Your task to perform on an android device: install app "Lyft - Rideshare, Bikes, Scooters & Transit" Image 0: 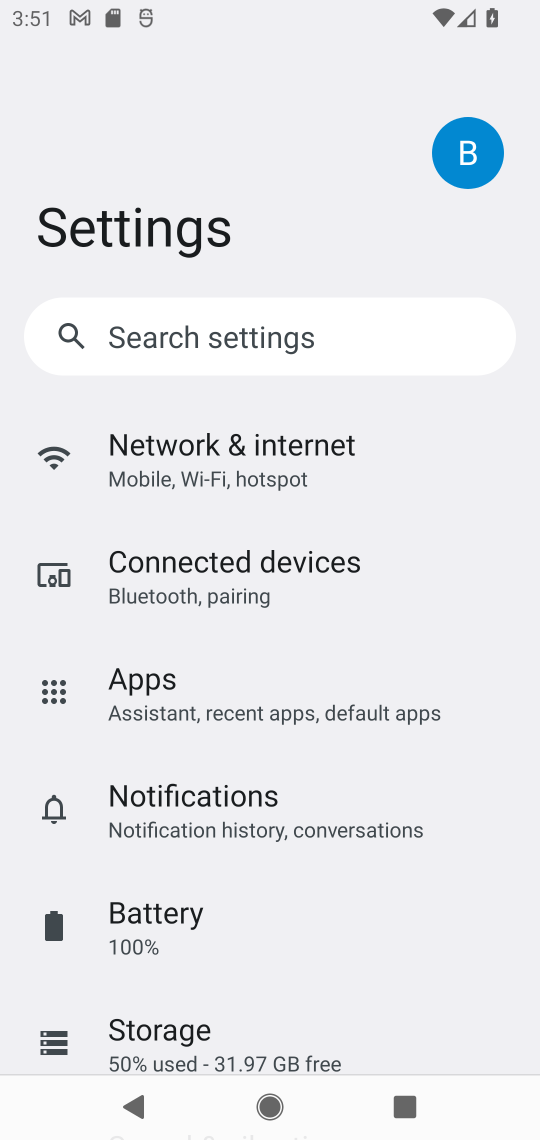
Step 0: press home button
Your task to perform on an android device: install app "Lyft - Rideshare, Bikes, Scooters & Transit" Image 1: 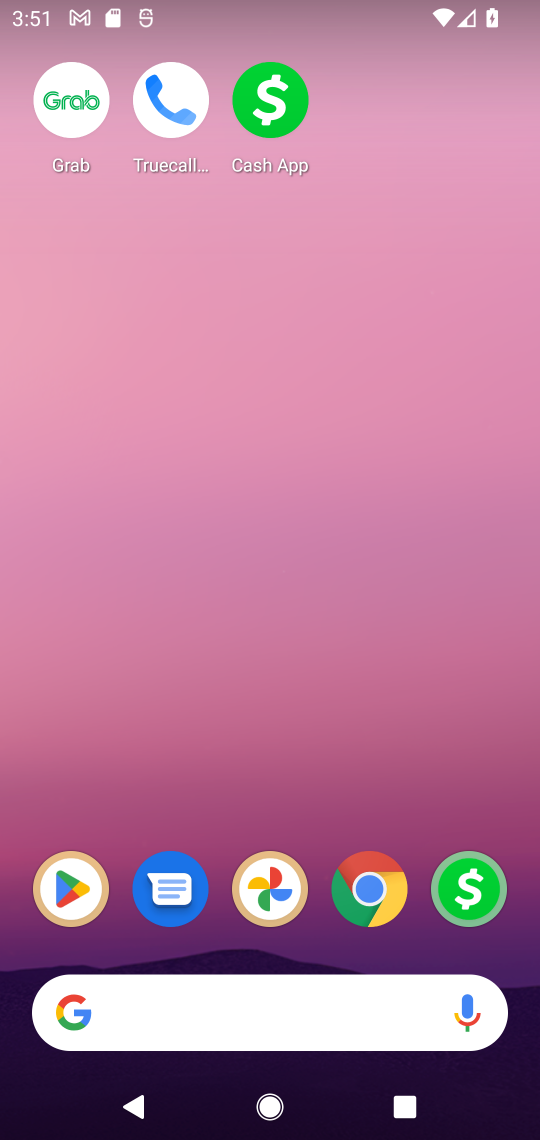
Step 1: drag from (307, 586) to (317, 223)
Your task to perform on an android device: install app "Lyft - Rideshare, Bikes, Scooters & Transit" Image 2: 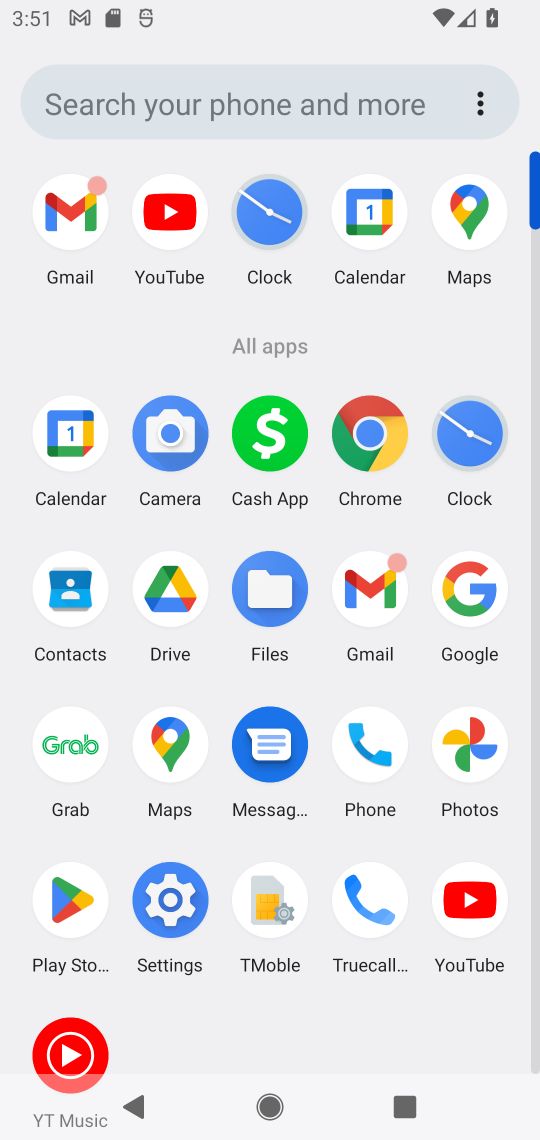
Step 2: click (82, 913)
Your task to perform on an android device: install app "Lyft - Rideshare, Bikes, Scooters & Transit" Image 3: 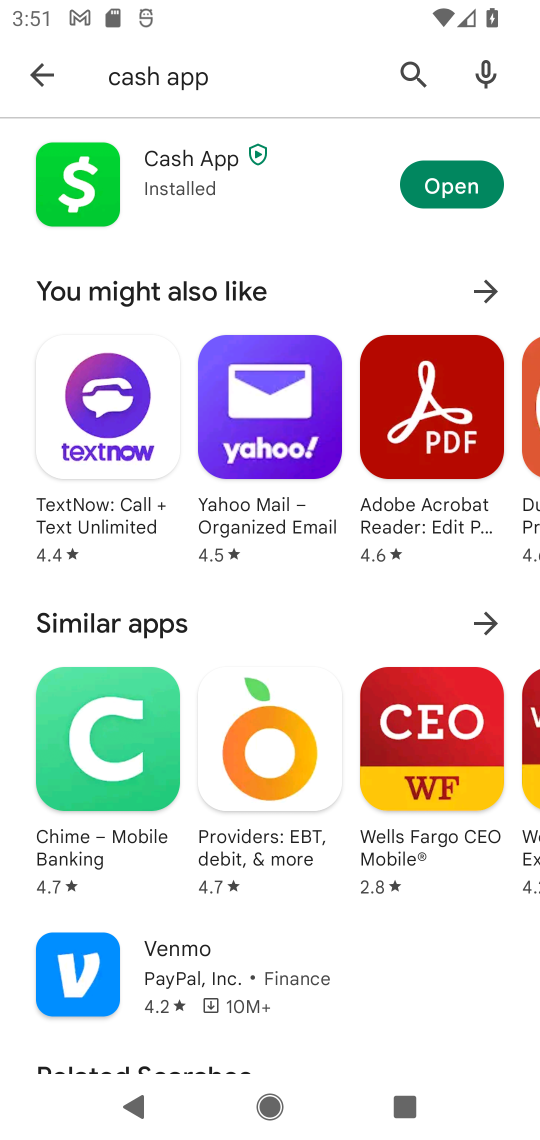
Step 3: click (420, 72)
Your task to perform on an android device: install app "Lyft - Rideshare, Bikes, Scooters & Transit" Image 4: 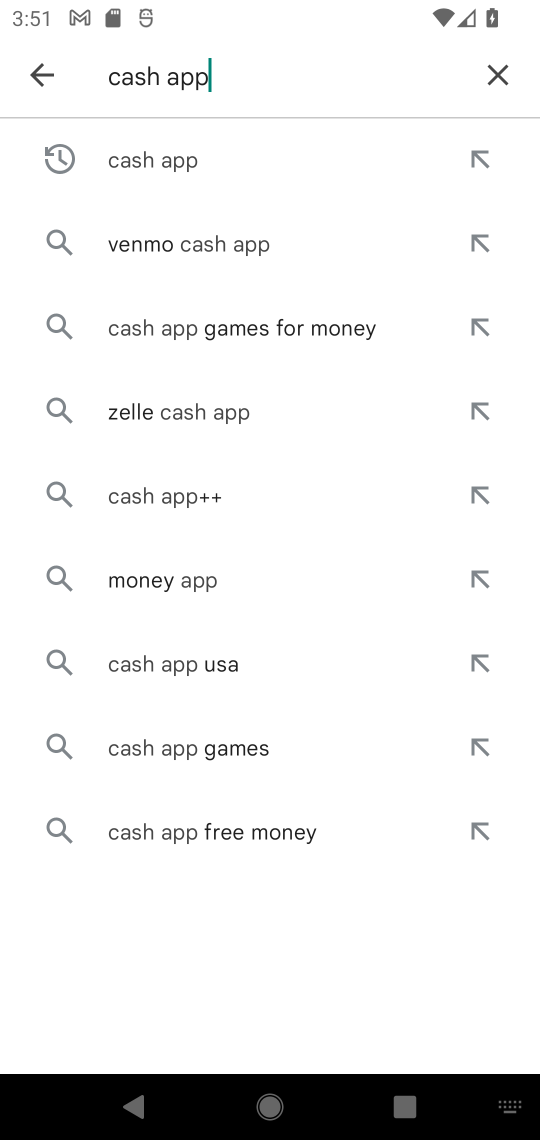
Step 4: click (491, 75)
Your task to perform on an android device: install app "Lyft - Rideshare, Bikes, Scooters & Transit" Image 5: 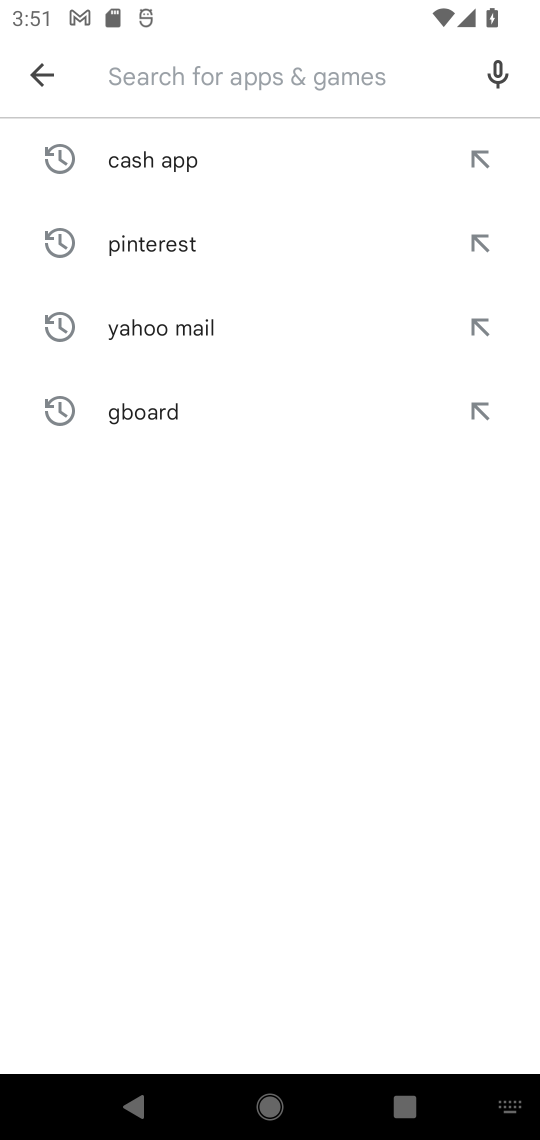
Step 5: type "Lyft - Rideshare, Bikes, Scooters & Transit"
Your task to perform on an android device: install app "Lyft - Rideshare, Bikes, Scooters & Transit" Image 6: 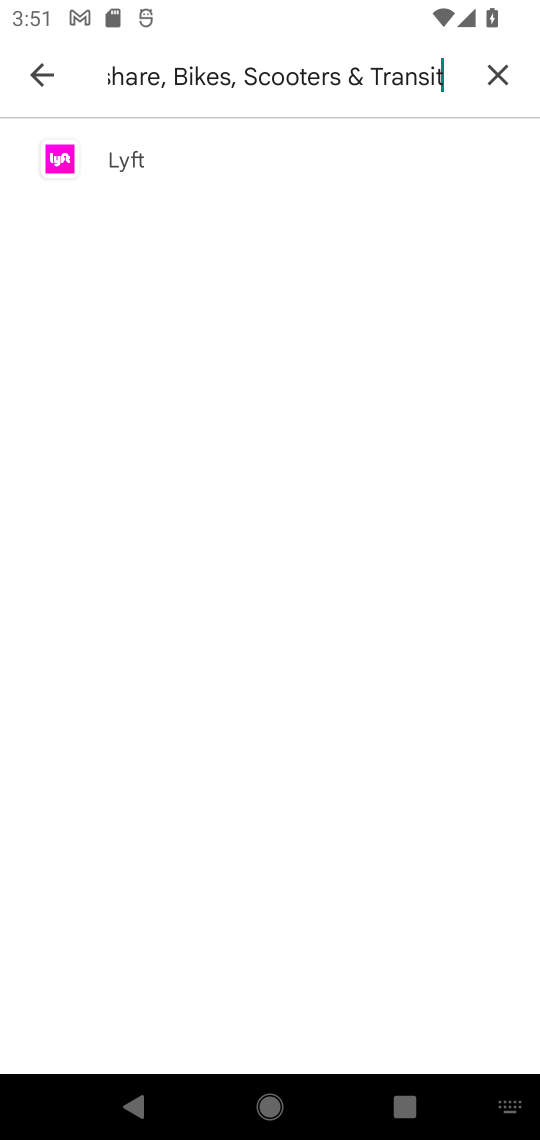
Step 6: click (192, 176)
Your task to perform on an android device: install app "Lyft - Rideshare, Bikes, Scooters & Transit" Image 7: 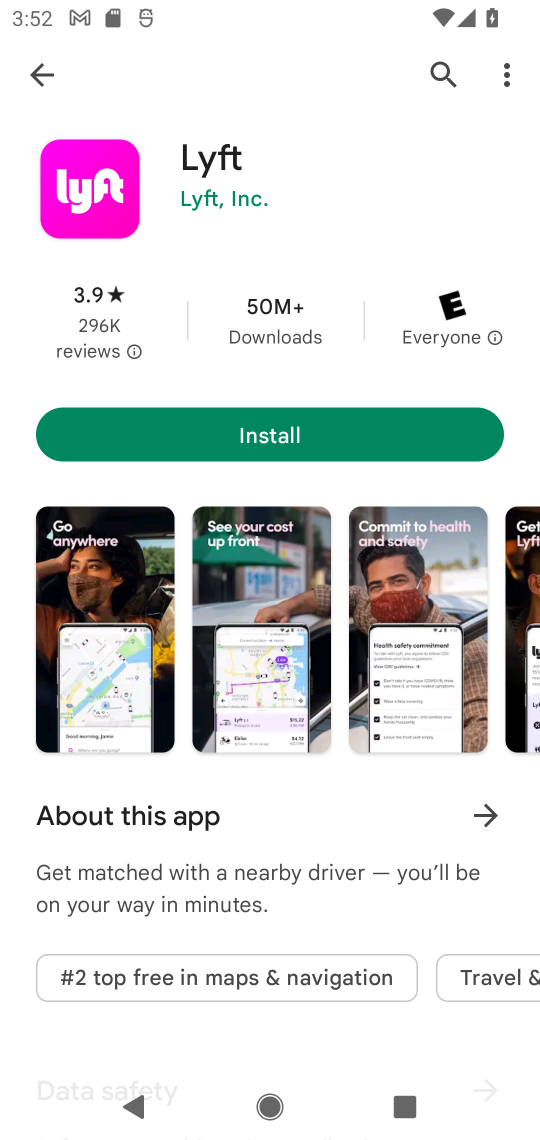
Step 7: click (402, 444)
Your task to perform on an android device: install app "Lyft - Rideshare, Bikes, Scooters & Transit" Image 8: 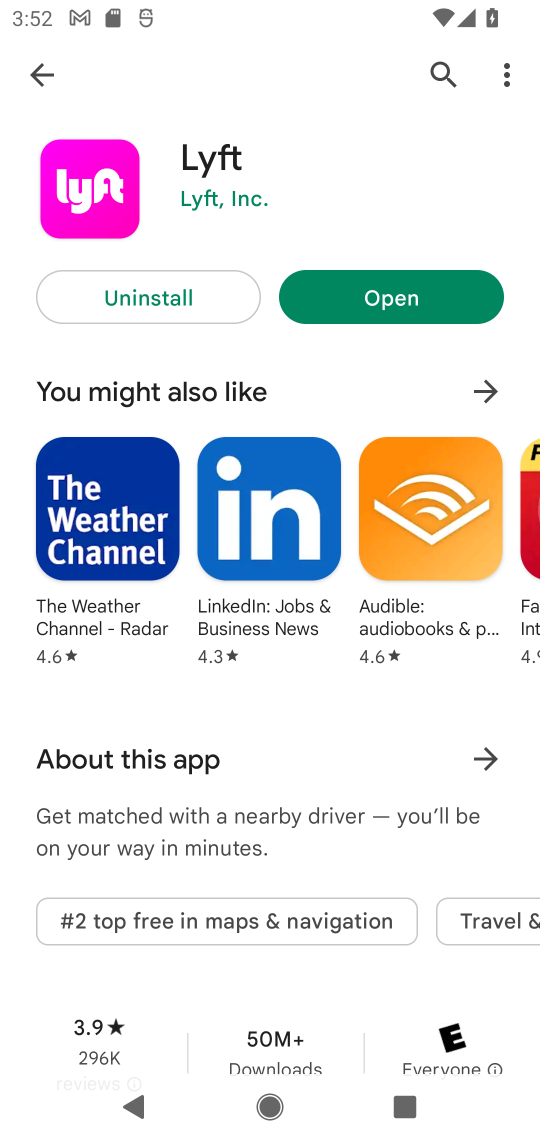
Step 8: task complete